Your task to perform on an android device: What's the news in Suriname? Image 0: 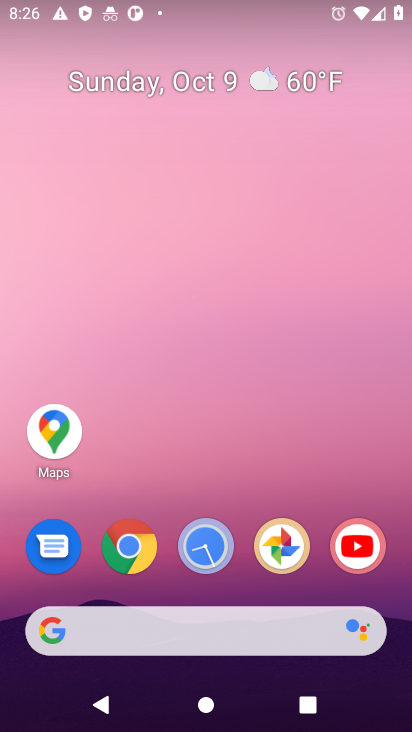
Step 0: click (126, 561)
Your task to perform on an android device: What's the news in Suriname? Image 1: 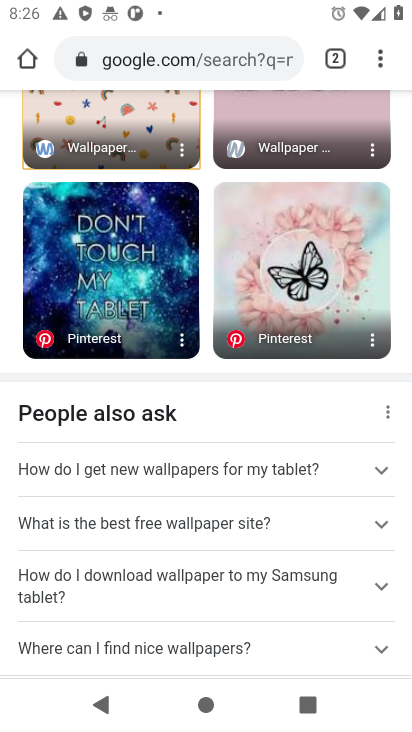
Step 1: click (235, 74)
Your task to perform on an android device: What's the news in Suriname? Image 2: 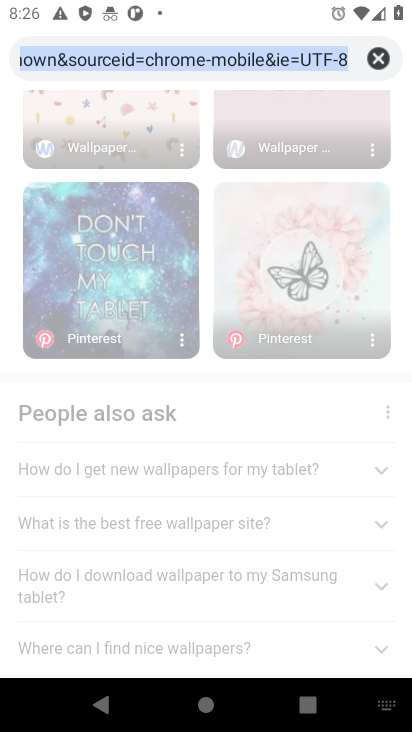
Step 2: type "news in suriname"
Your task to perform on an android device: What's the news in Suriname? Image 3: 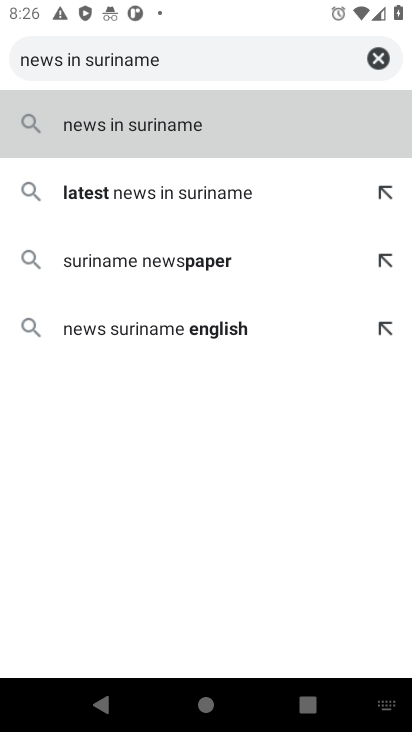
Step 3: press enter
Your task to perform on an android device: What's the news in Suriname? Image 4: 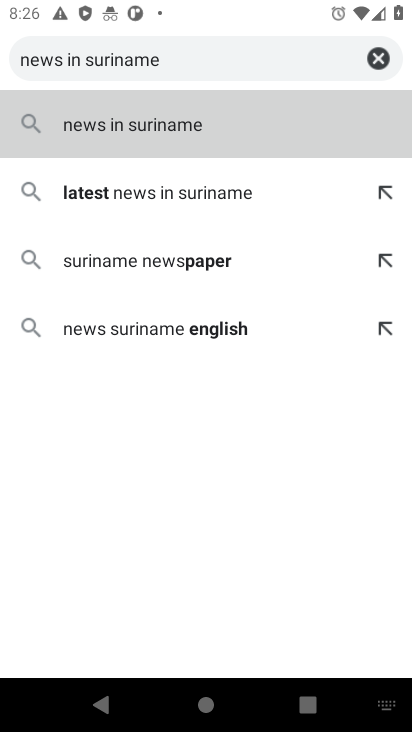
Step 4: type ""
Your task to perform on an android device: What's the news in Suriname? Image 5: 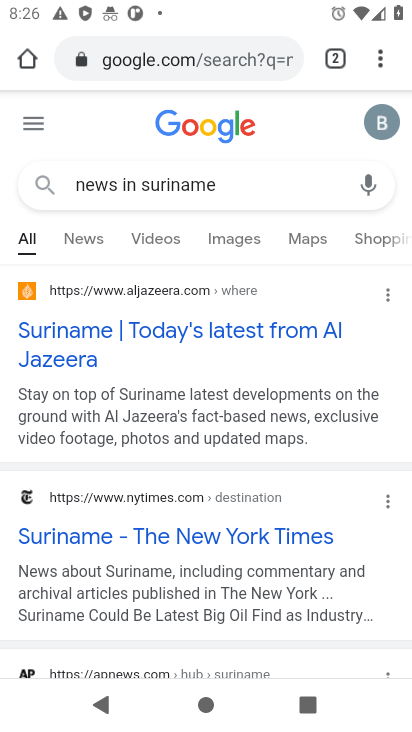
Step 5: drag from (155, 446) to (159, 365)
Your task to perform on an android device: What's the news in Suriname? Image 6: 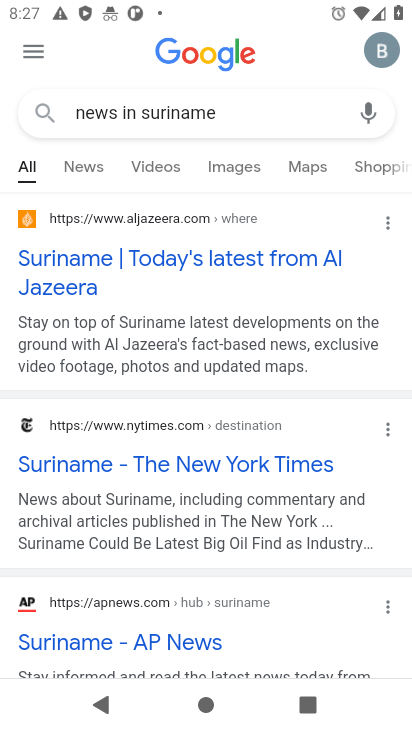
Step 6: click (159, 365)
Your task to perform on an android device: What's the news in Suriname? Image 7: 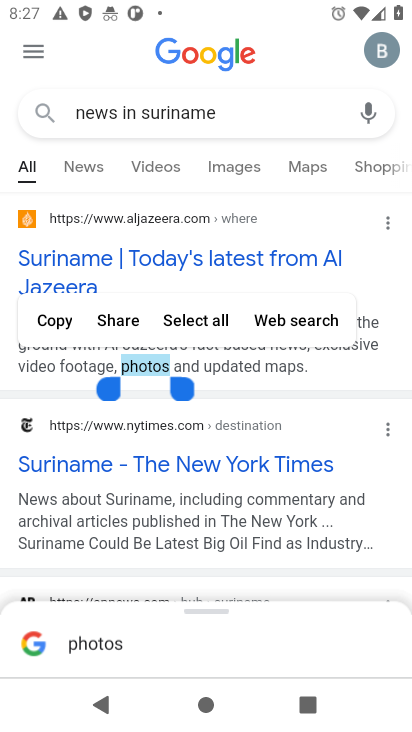
Step 7: drag from (173, 496) to (179, 544)
Your task to perform on an android device: What's the news in Suriname? Image 8: 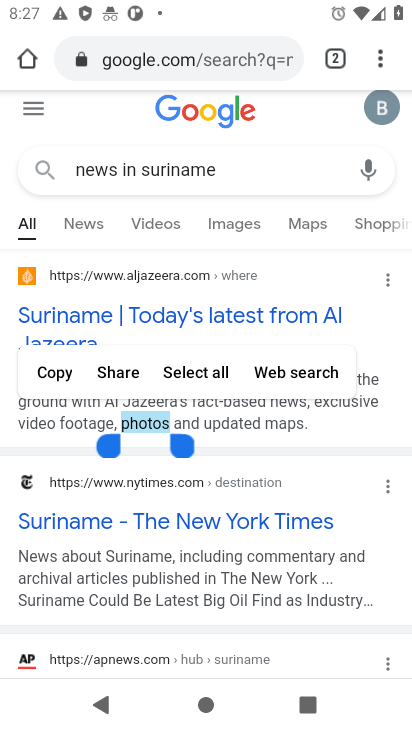
Step 8: click (80, 233)
Your task to perform on an android device: What's the news in Suriname? Image 9: 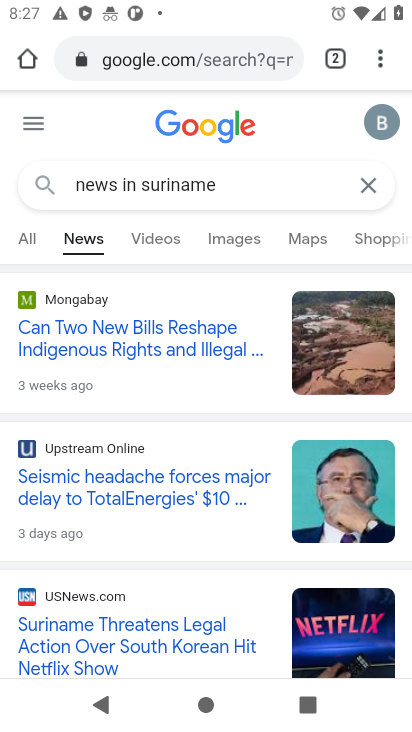
Step 9: task complete